Your task to perform on an android device: Add "logitech g903" to the cart on ebay.com, then select checkout. Image 0: 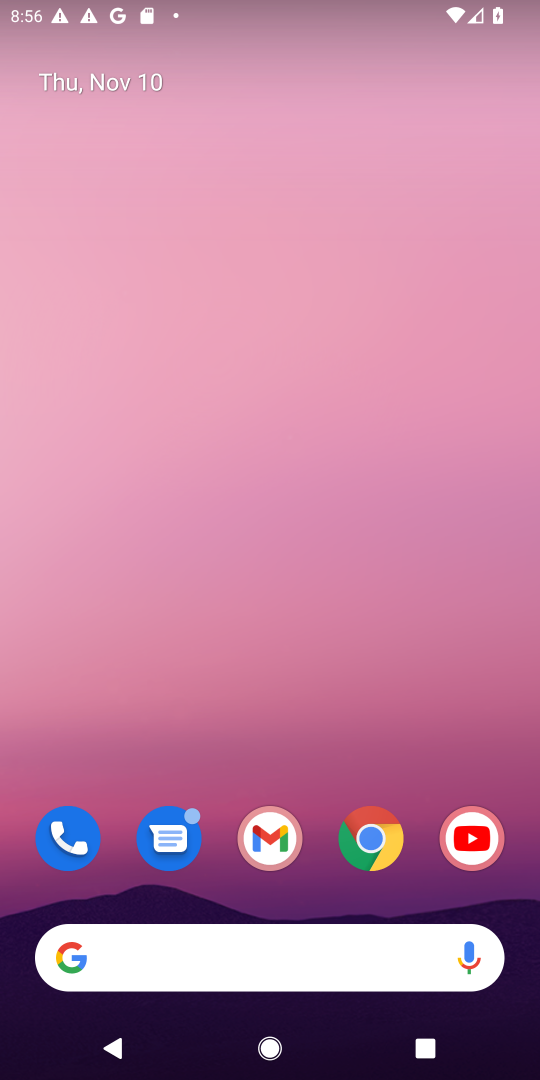
Step 0: drag from (315, 903) to (426, 88)
Your task to perform on an android device: Add "logitech g903" to the cart on ebay.com, then select checkout. Image 1: 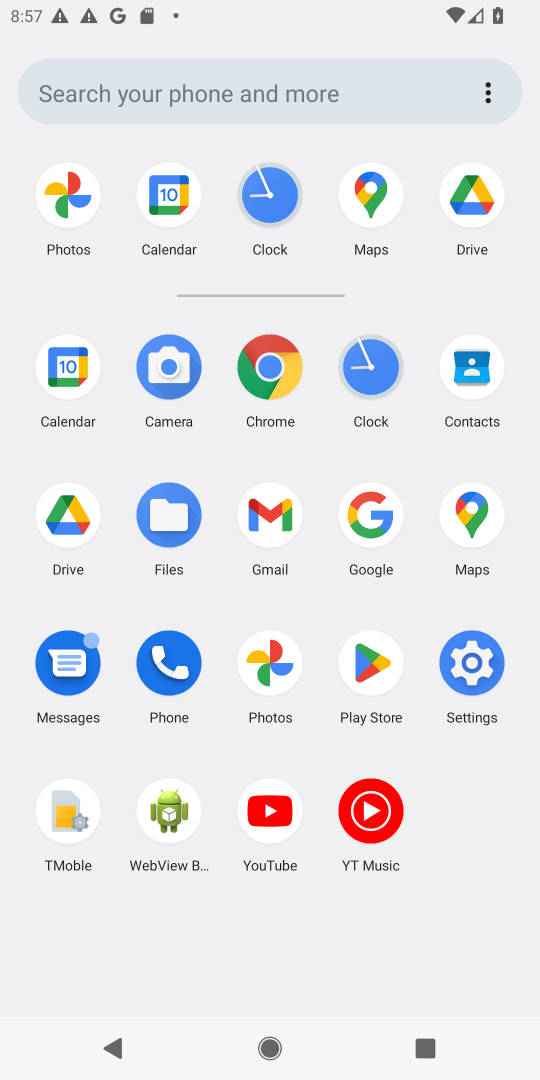
Step 1: click (277, 375)
Your task to perform on an android device: Add "logitech g903" to the cart on ebay.com, then select checkout. Image 2: 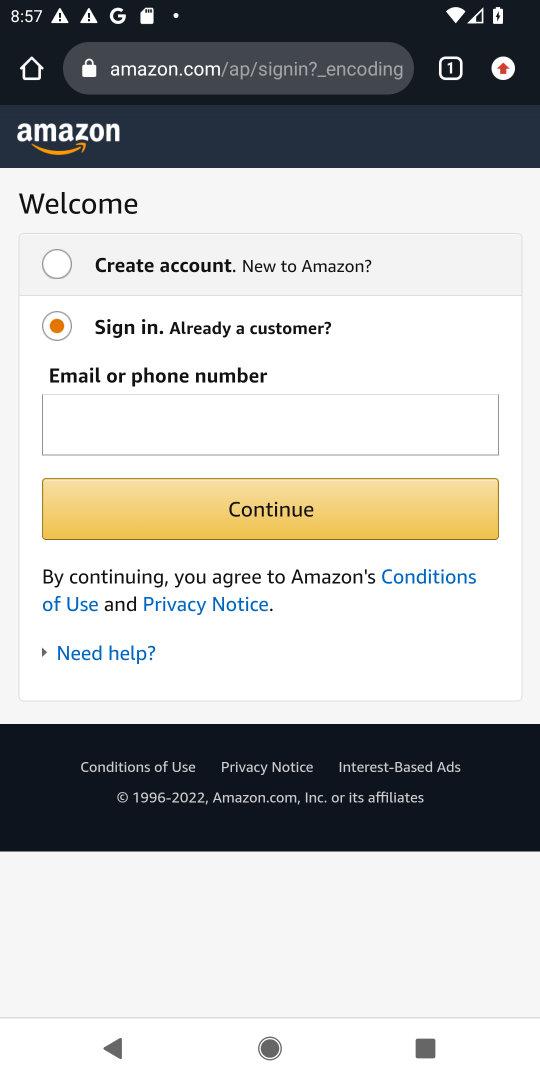
Step 2: click (253, 66)
Your task to perform on an android device: Add "logitech g903" to the cart on ebay.com, then select checkout. Image 3: 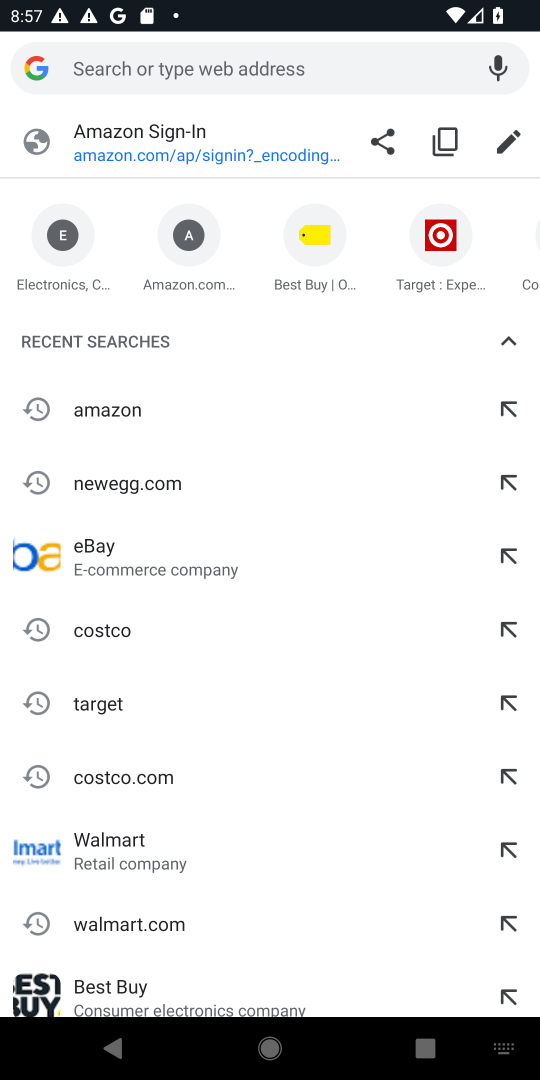
Step 3: type "ebay.com"
Your task to perform on an android device: Add "logitech g903" to the cart on ebay.com, then select checkout. Image 4: 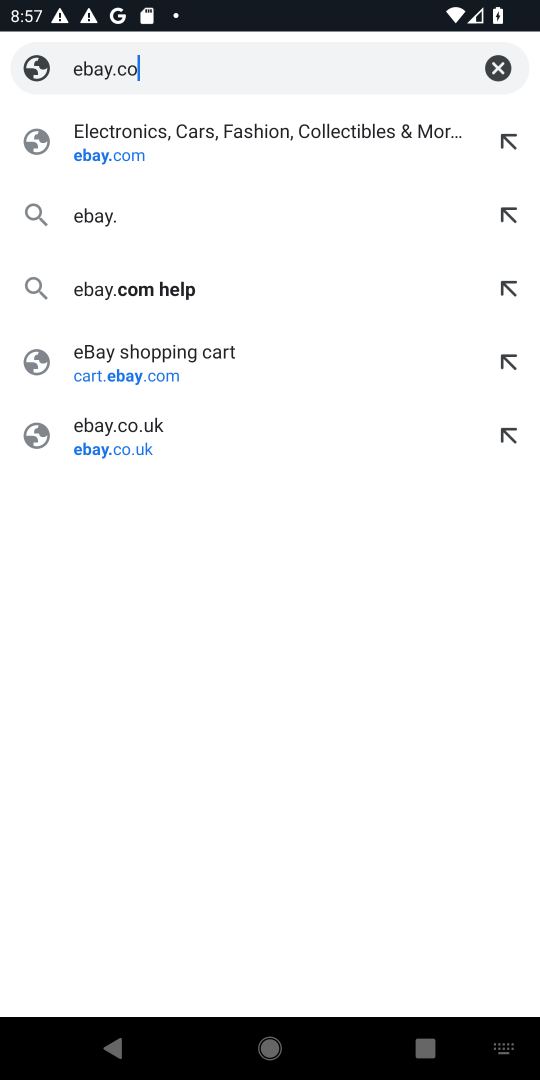
Step 4: press enter
Your task to perform on an android device: Add "logitech g903" to the cart on ebay.com, then select checkout. Image 5: 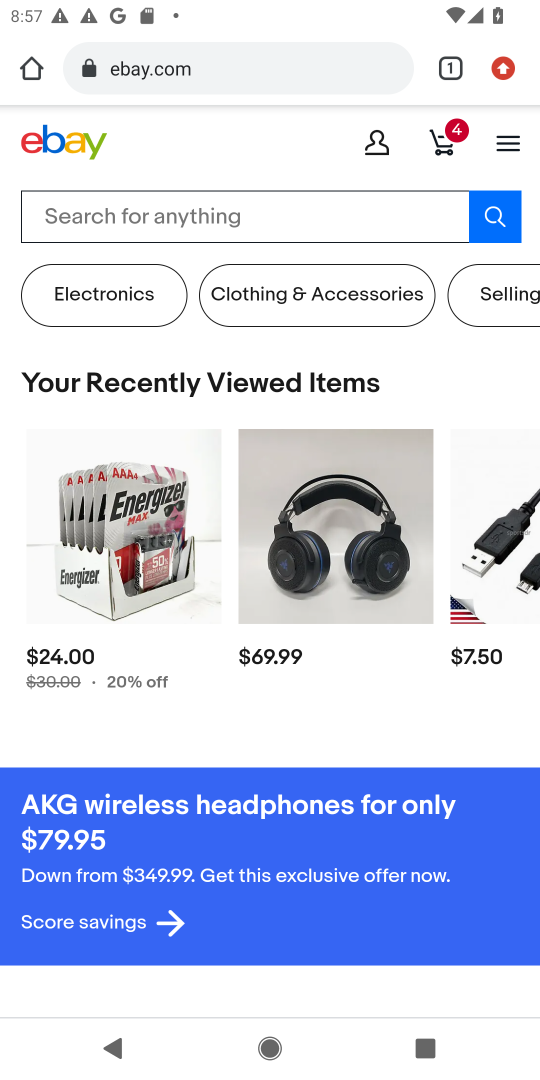
Step 5: click (297, 212)
Your task to perform on an android device: Add "logitech g903" to the cart on ebay.com, then select checkout. Image 6: 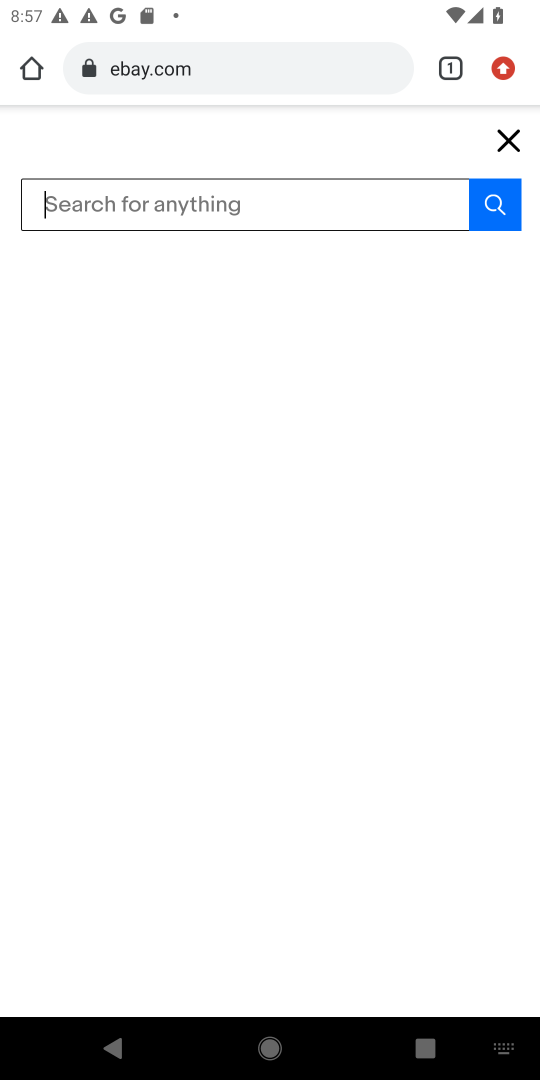
Step 6: type "logitech g903"
Your task to perform on an android device: Add "logitech g903" to the cart on ebay.com, then select checkout. Image 7: 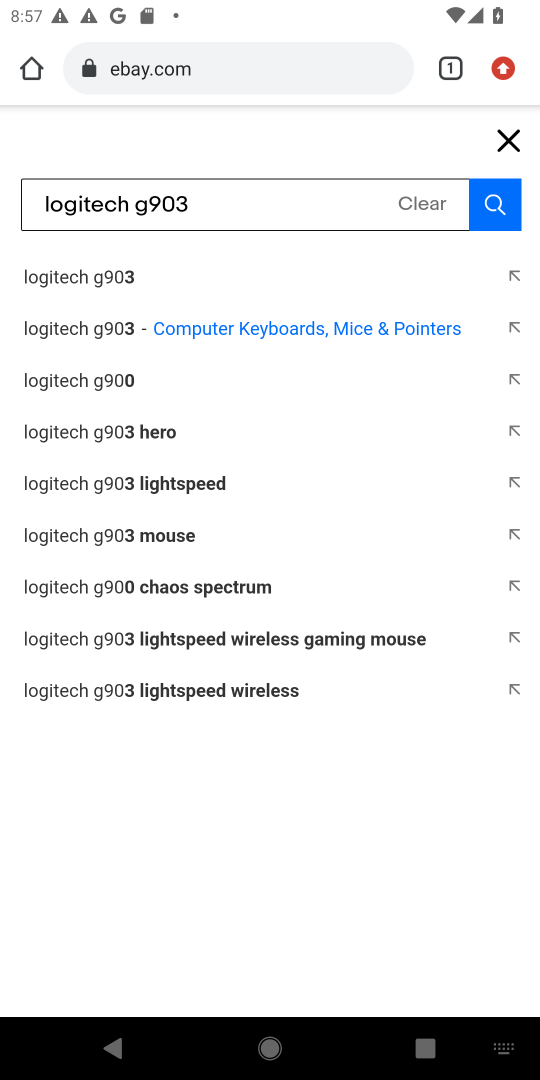
Step 7: press enter
Your task to perform on an android device: Add "logitech g903" to the cart on ebay.com, then select checkout. Image 8: 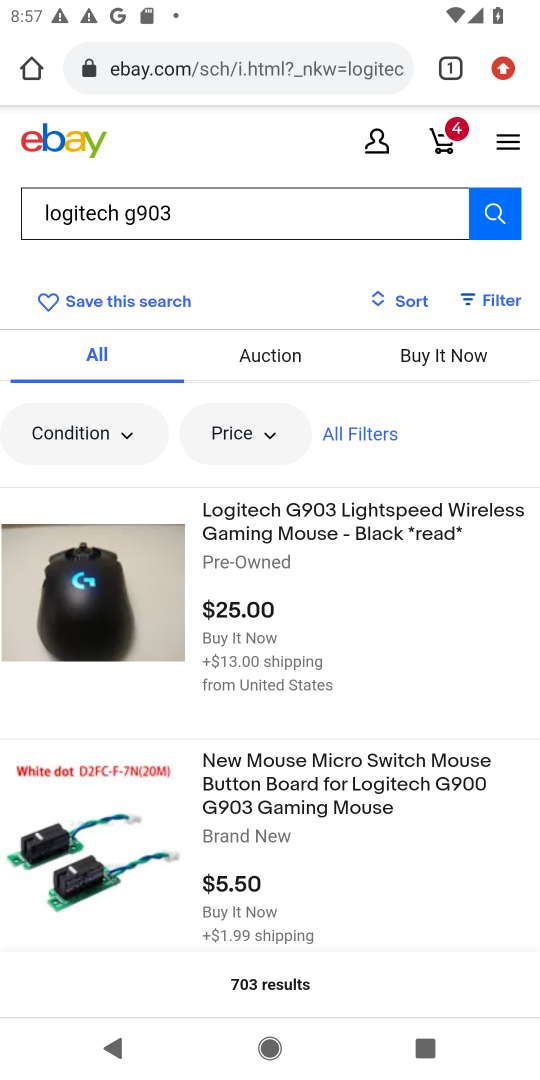
Step 8: click (302, 543)
Your task to perform on an android device: Add "logitech g903" to the cart on ebay.com, then select checkout. Image 9: 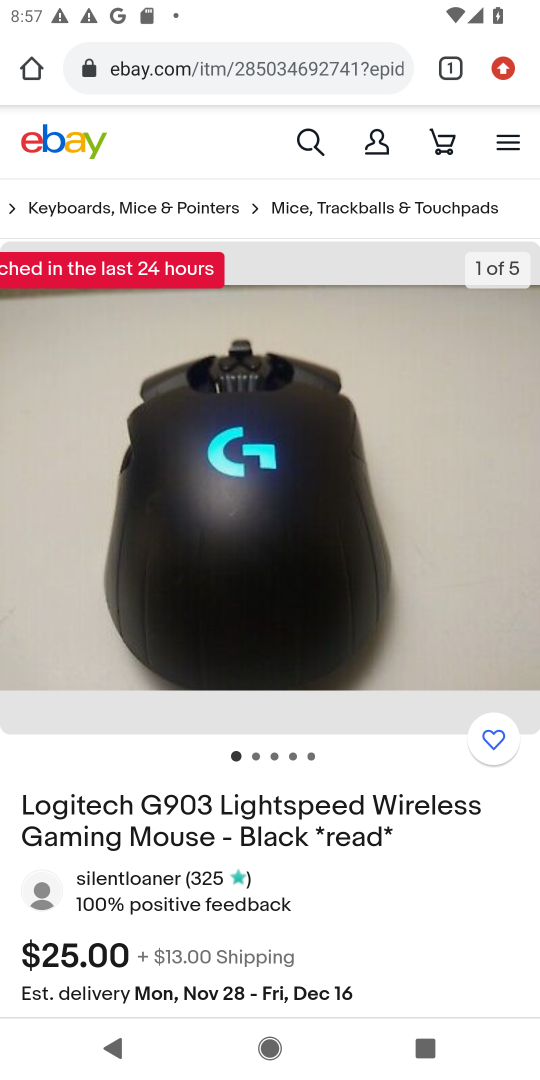
Step 9: drag from (305, 824) to (414, 55)
Your task to perform on an android device: Add "logitech g903" to the cart on ebay.com, then select checkout. Image 10: 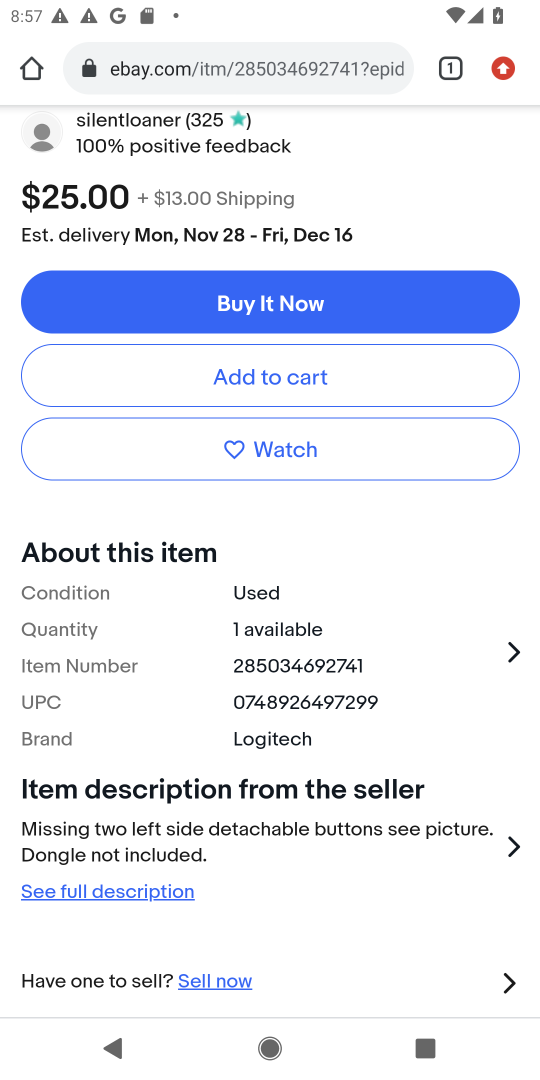
Step 10: click (301, 381)
Your task to perform on an android device: Add "logitech g903" to the cart on ebay.com, then select checkout. Image 11: 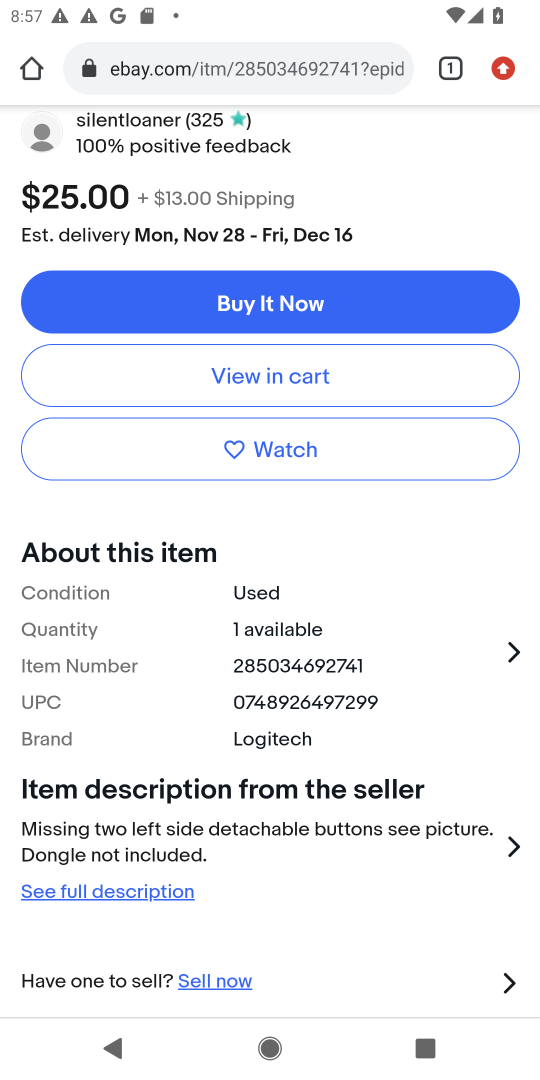
Step 11: click (303, 382)
Your task to perform on an android device: Add "logitech g903" to the cart on ebay.com, then select checkout. Image 12: 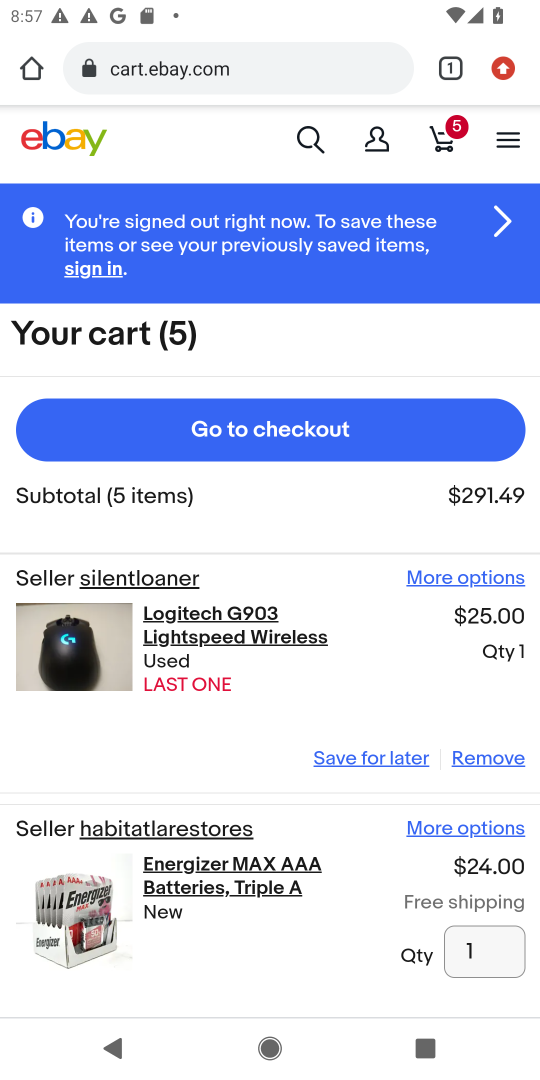
Step 12: click (311, 423)
Your task to perform on an android device: Add "logitech g903" to the cart on ebay.com, then select checkout. Image 13: 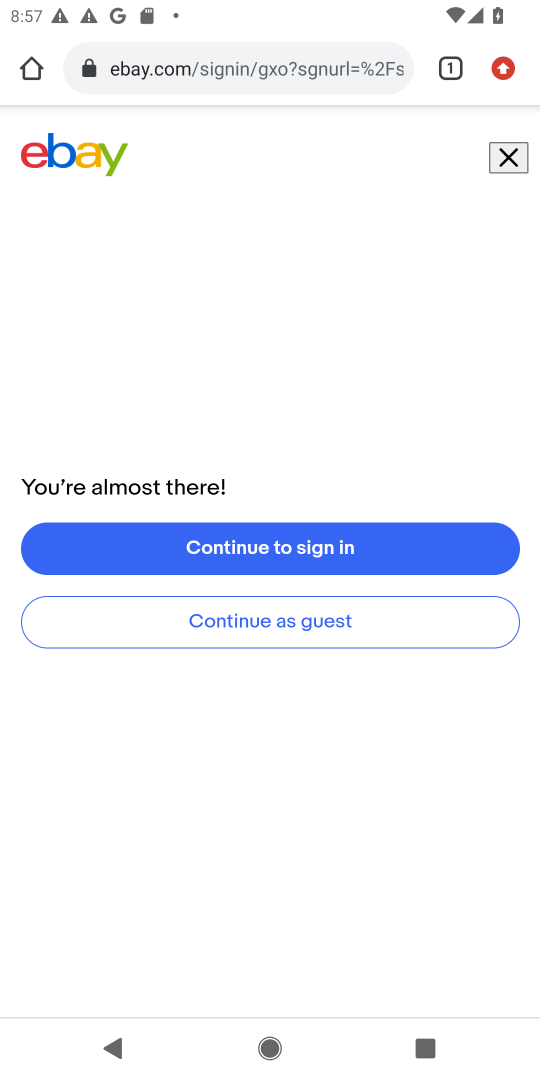
Step 13: task complete